Your task to perform on an android device: open a new tab in the chrome app Image 0: 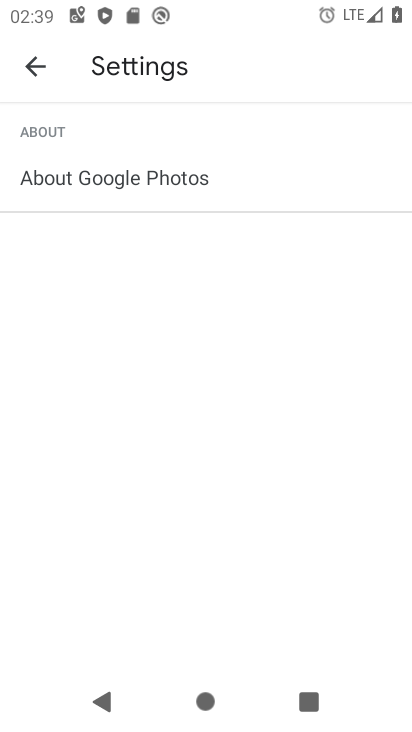
Step 0: press home button
Your task to perform on an android device: open a new tab in the chrome app Image 1: 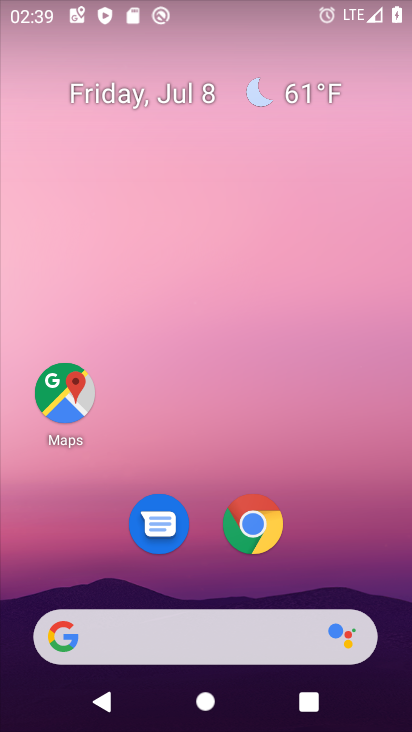
Step 1: click (257, 520)
Your task to perform on an android device: open a new tab in the chrome app Image 2: 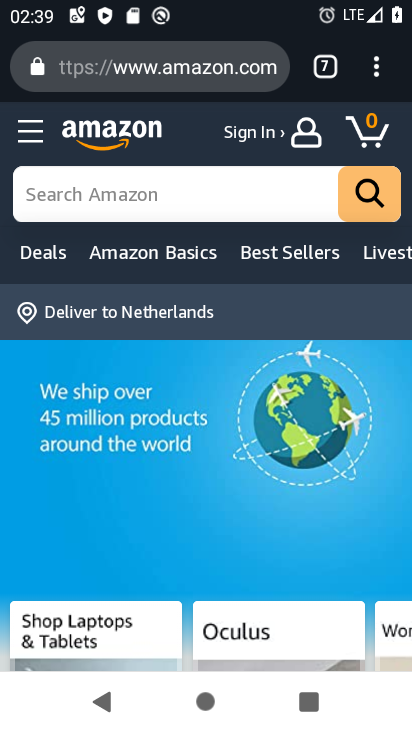
Step 2: click (381, 70)
Your task to perform on an android device: open a new tab in the chrome app Image 3: 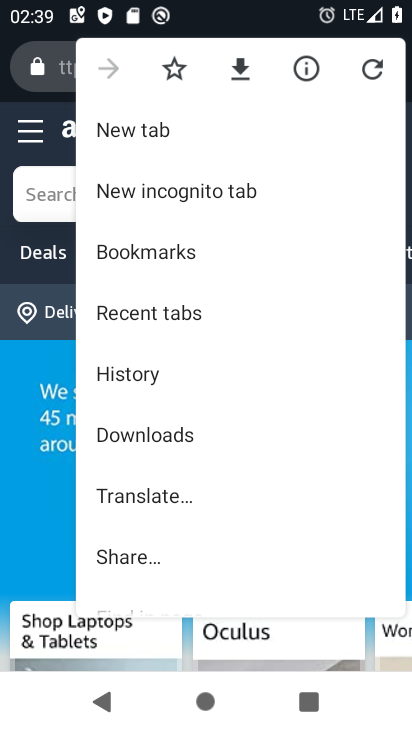
Step 3: click (281, 131)
Your task to perform on an android device: open a new tab in the chrome app Image 4: 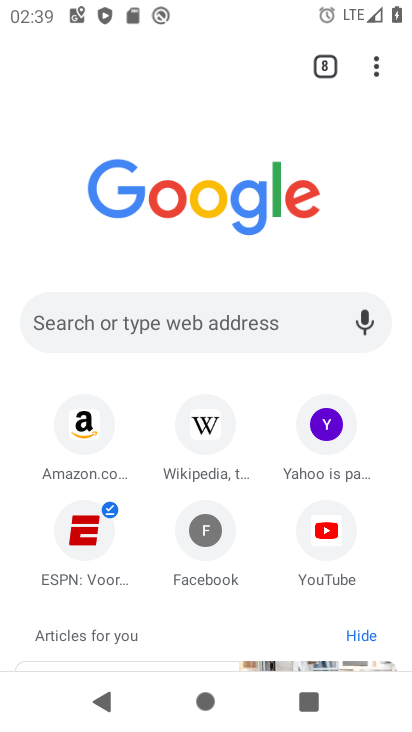
Step 4: task complete